Your task to perform on an android device: turn off priority inbox in the gmail app Image 0: 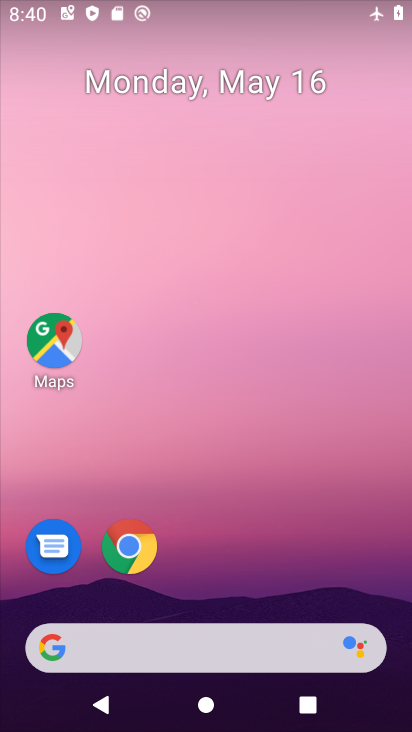
Step 0: drag from (255, 676) to (276, 109)
Your task to perform on an android device: turn off priority inbox in the gmail app Image 1: 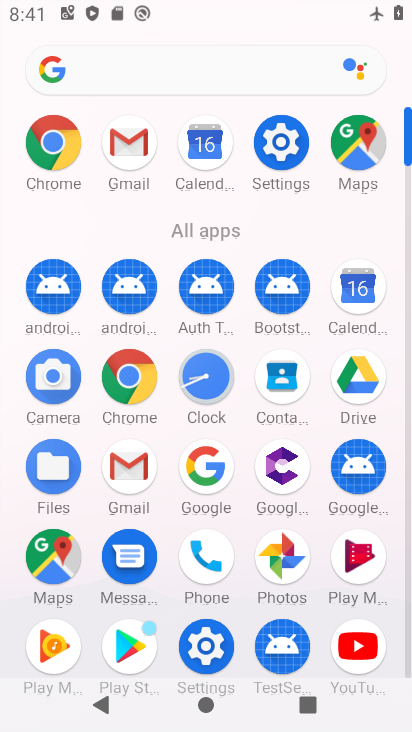
Step 1: click (139, 139)
Your task to perform on an android device: turn off priority inbox in the gmail app Image 2: 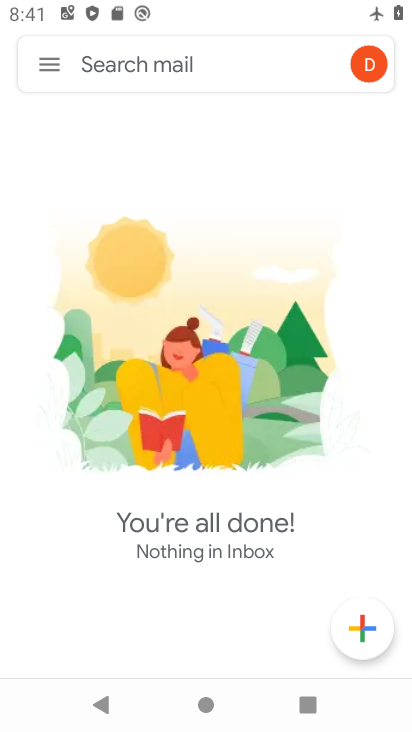
Step 2: click (48, 60)
Your task to perform on an android device: turn off priority inbox in the gmail app Image 3: 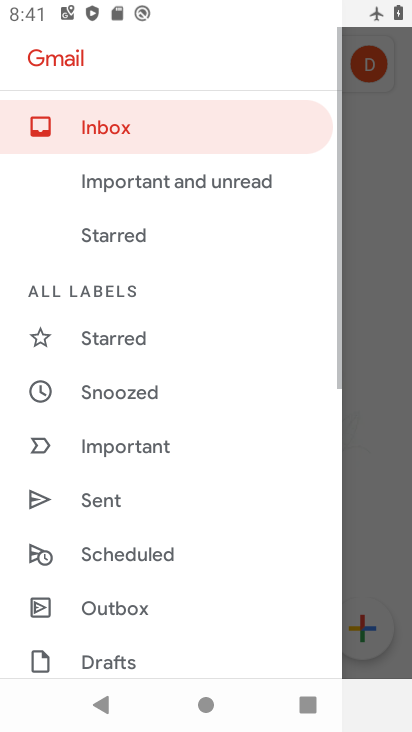
Step 3: drag from (162, 556) to (242, 295)
Your task to perform on an android device: turn off priority inbox in the gmail app Image 4: 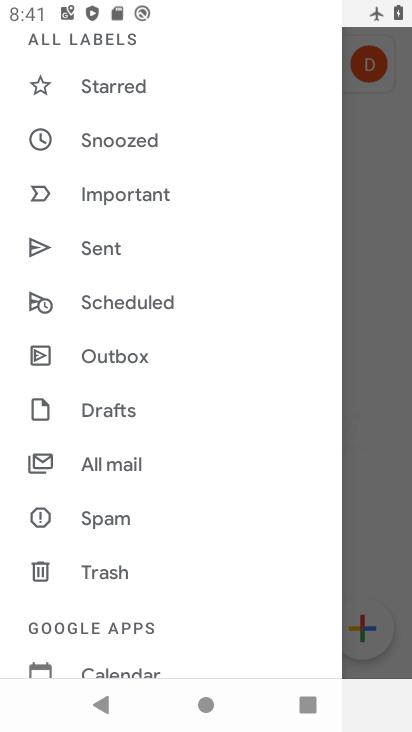
Step 4: drag from (163, 532) to (179, 401)
Your task to perform on an android device: turn off priority inbox in the gmail app Image 5: 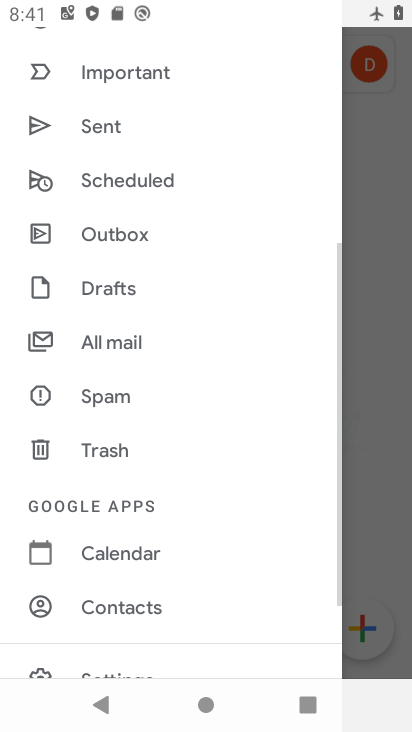
Step 5: drag from (143, 588) to (157, 457)
Your task to perform on an android device: turn off priority inbox in the gmail app Image 6: 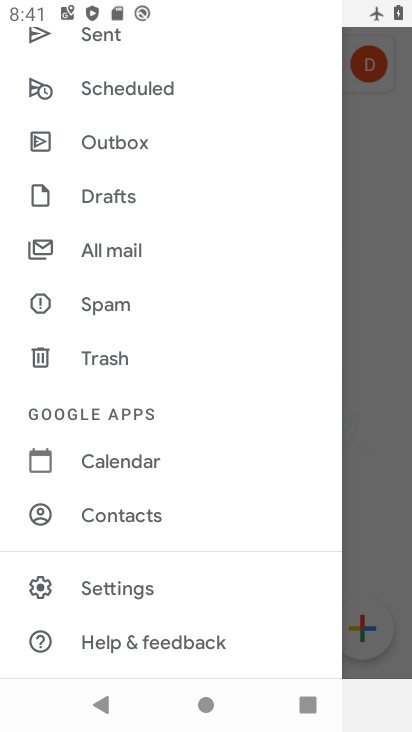
Step 6: click (115, 598)
Your task to perform on an android device: turn off priority inbox in the gmail app Image 7: 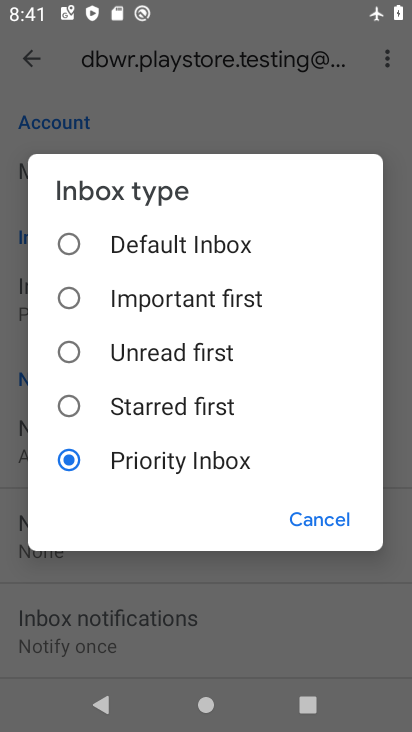
Step 7: click (137, 247)
Your task to perform on an android device: turn off priority inbox in the gmail app Image 8: 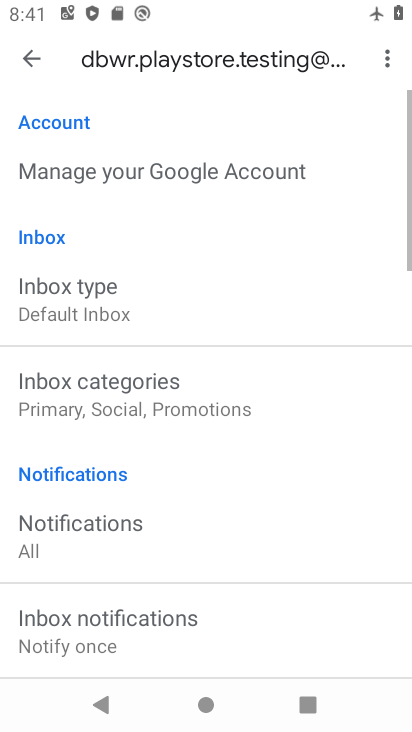
Step 8: task complete